Your task to perform on an android device: Open settings Image 0: 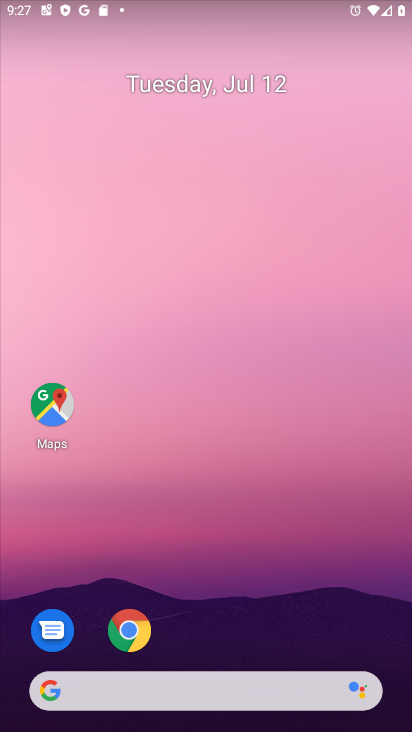
Step 0: drag from (192, 643) to (188, 202)
Your task to perform on an android device: Open settings Image 1: 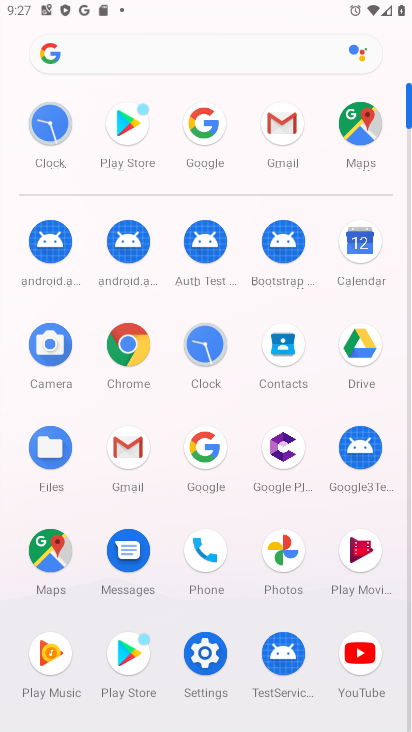
Step 1: click (211, 653)
Your task to perform on an android device: Open settings Image 2: 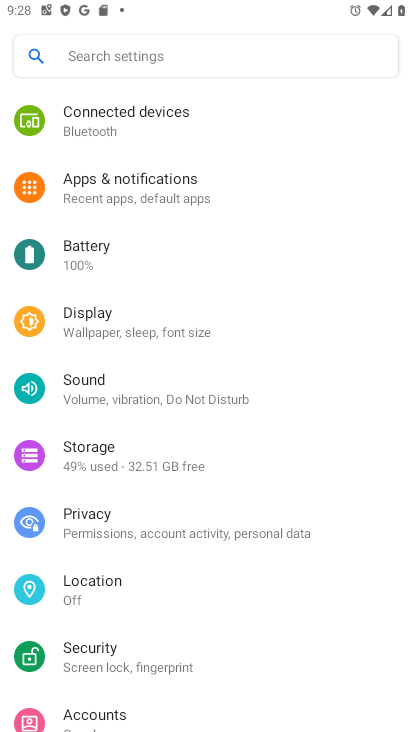
Step 2: task complete